Your task to perform on an android device: Check the news Image 0: 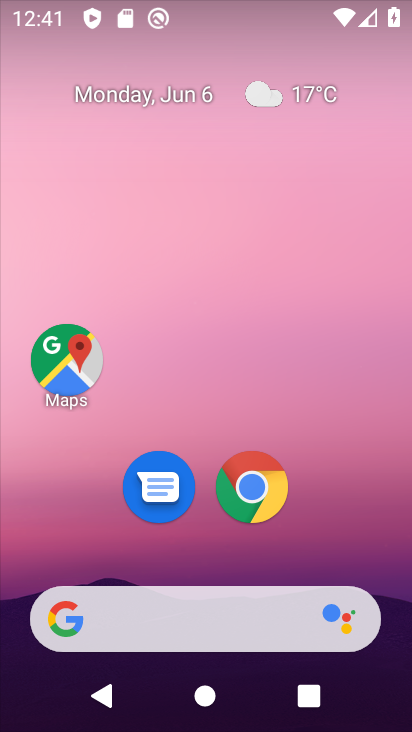
Step 0: click (254, 488)
Your task to perform on an android device: Check the news Image 1: 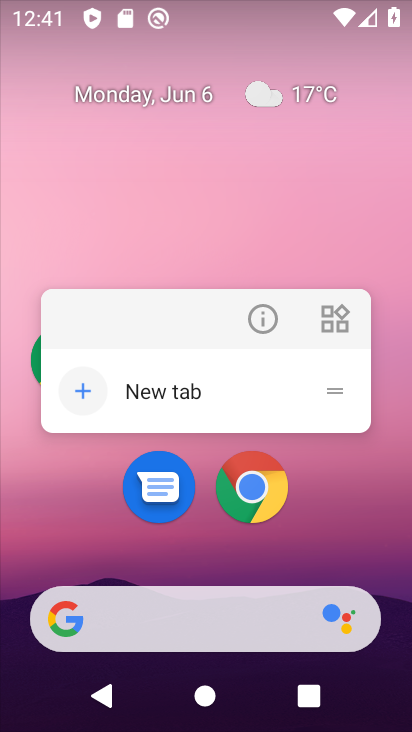
Step 1: click (254, 488)
Your task to perform on an android device: Check the news Image 2: 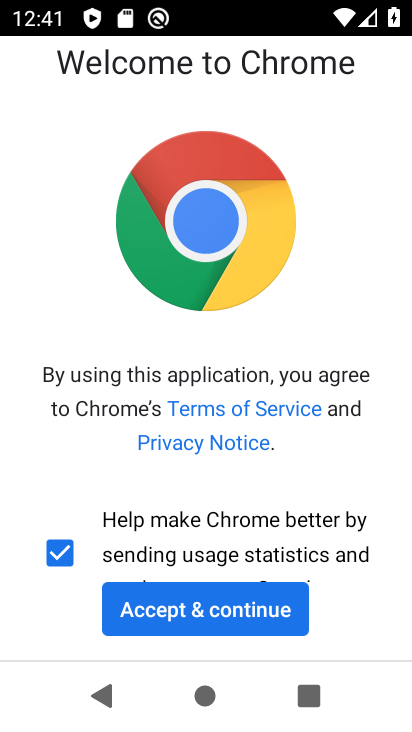
Step 2: click (196, 608)
Your task to perform on an android device: Check the news Image 3: 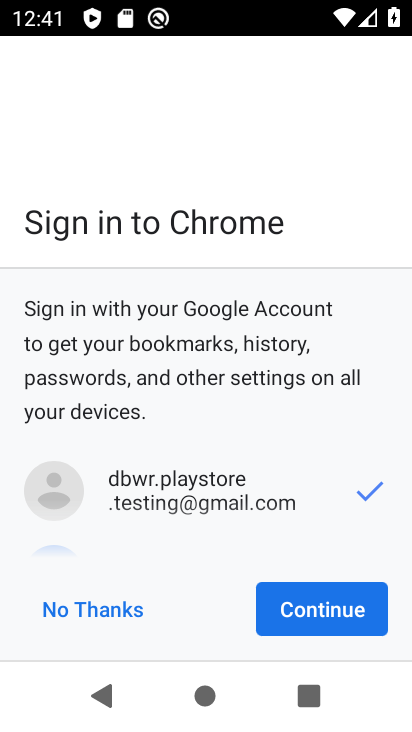
Step 3: click (322, 608)
Your task to perform on an android device: Check the news Image 4: 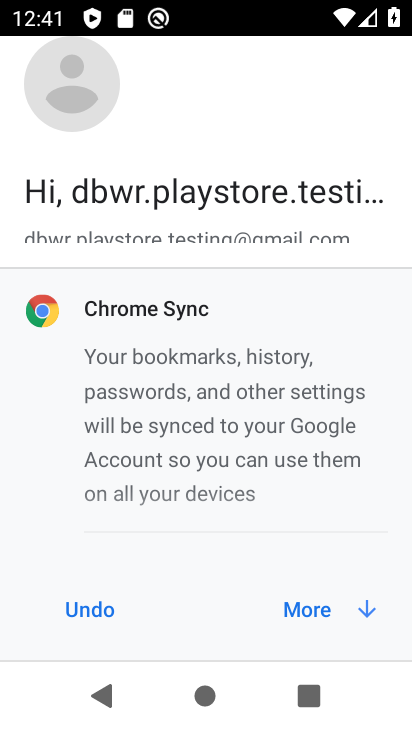
Step 4: click (322, 608)
Your task to perform on an android device: Check the news Image 5: 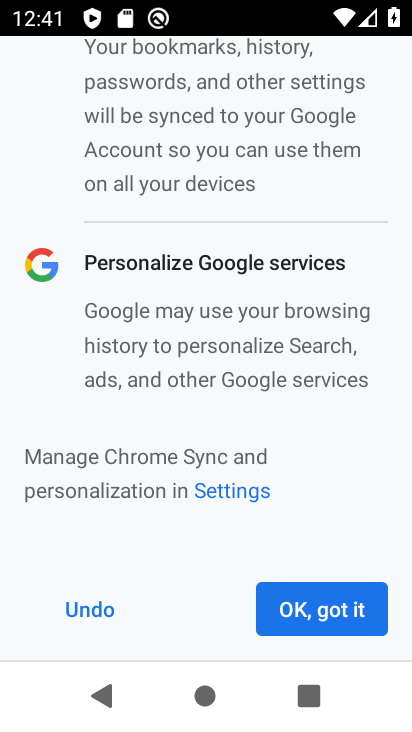
Step 5: click (322, 608)
Your task to perform on an android device: Check the news Image 6: 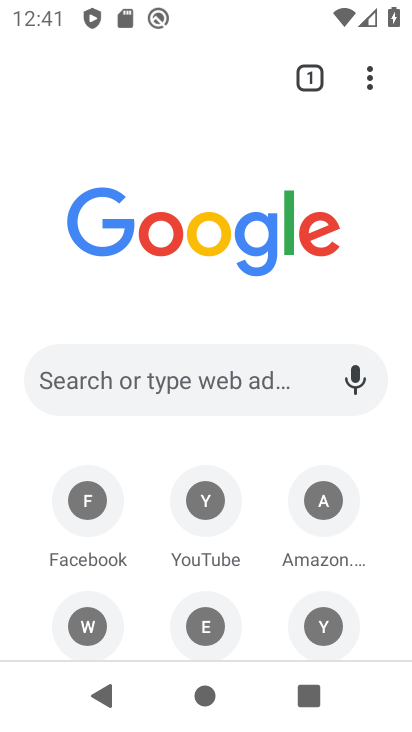
Step 6: click (241, 378)
Your task to perform on an android device: Check the news Image 7: 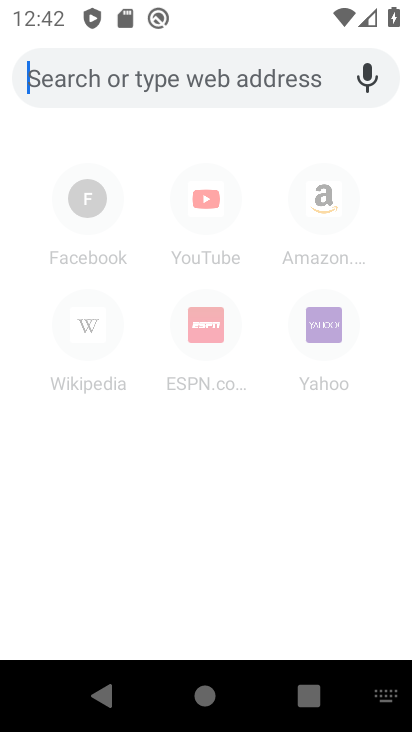
Step 7: type "news"
Your task to perform on an android device: Check the news Image 8: 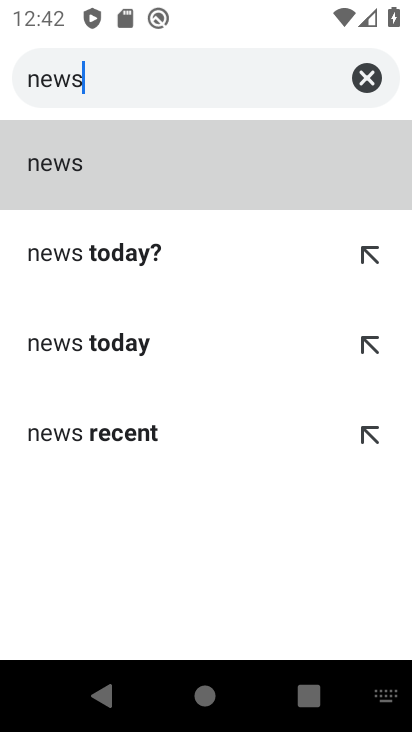
Step 8: click (66, 176)
Your task to perform on an android device: Check the news Image 9: 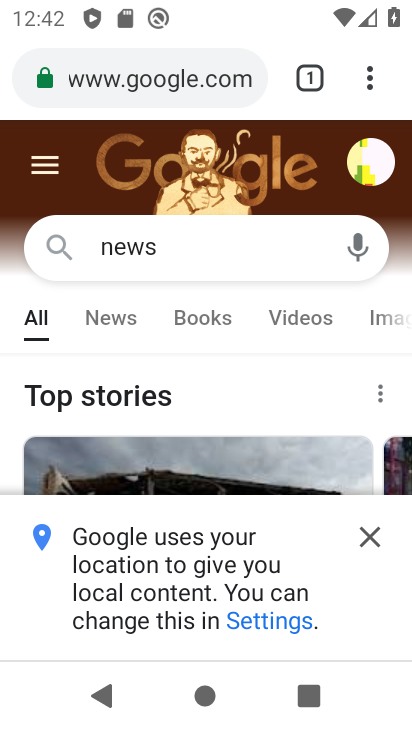
Step 9: click (372, 535)
Your task to perform on an android device: Check the news Image 10: 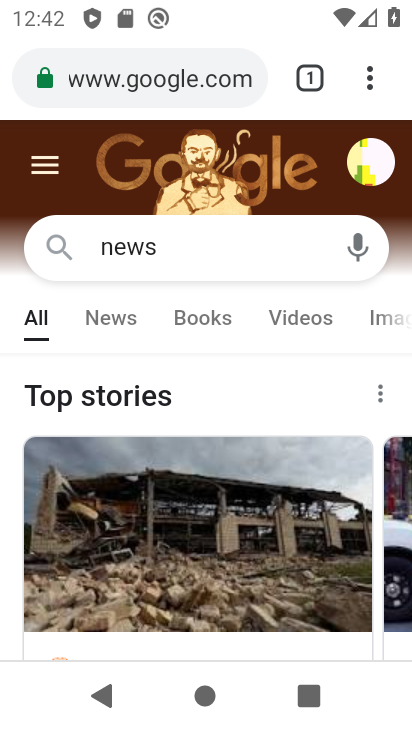
Step 10: drag from (161, 593) to (244, 336)
Your task to perform on an android device: Check the news Image 11: 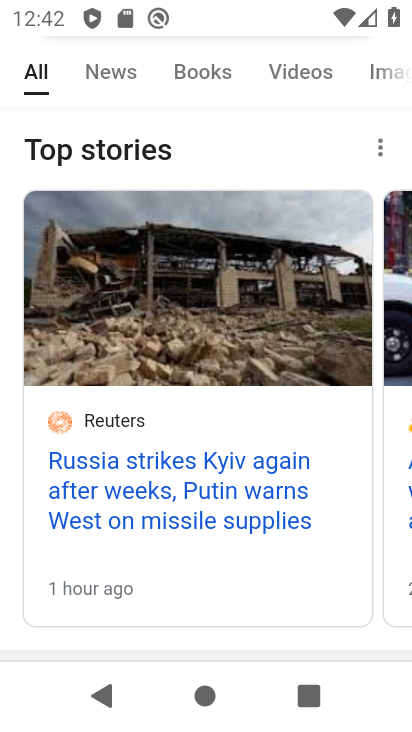
Step 11: click (178, 501)
Your task to perform on an android device: Check the news Image 12: 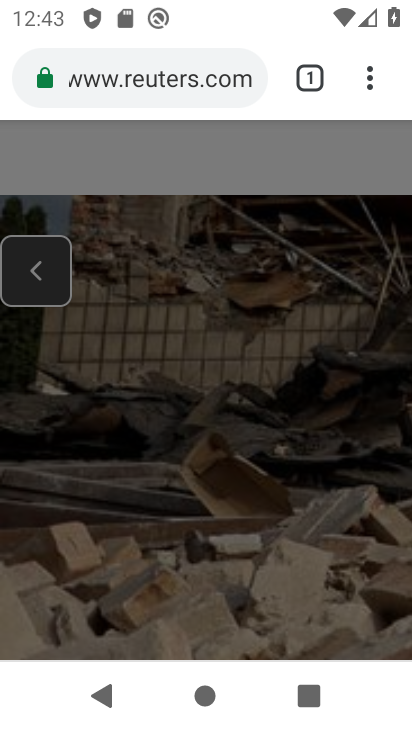
Step 12: task complete